Your task to perform on an android device: Turn on the flashlight Image 0: 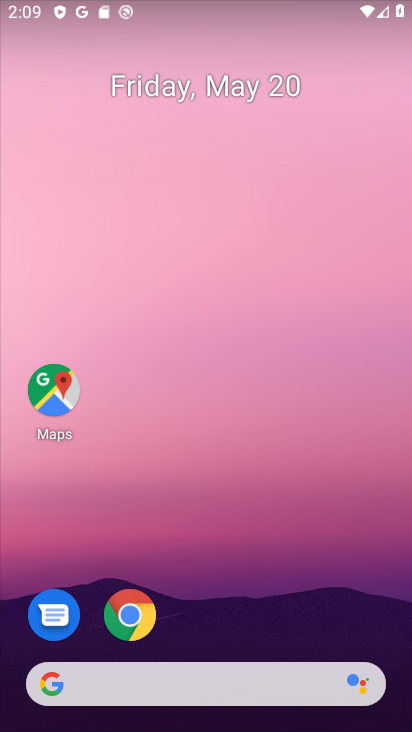
Step 0: drag from (263, 632) to (250, 64)
Your task to perform on an android device: Turn on the flashlight Image 1: 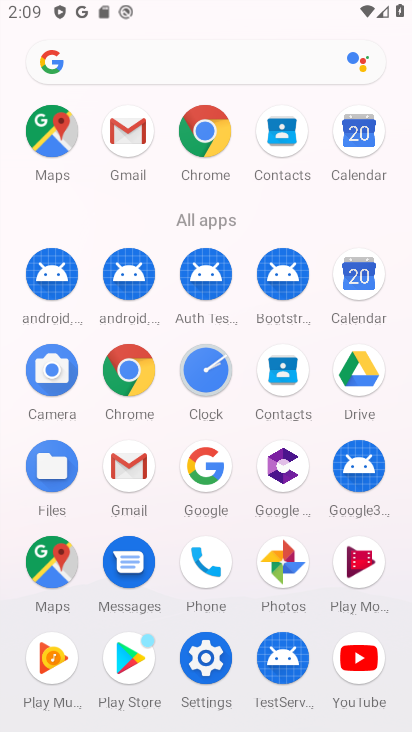
Step 1: drag from (243, 6) to (272, 574)
Your task to perform on an android device: Turn on the flashlight Image 2: 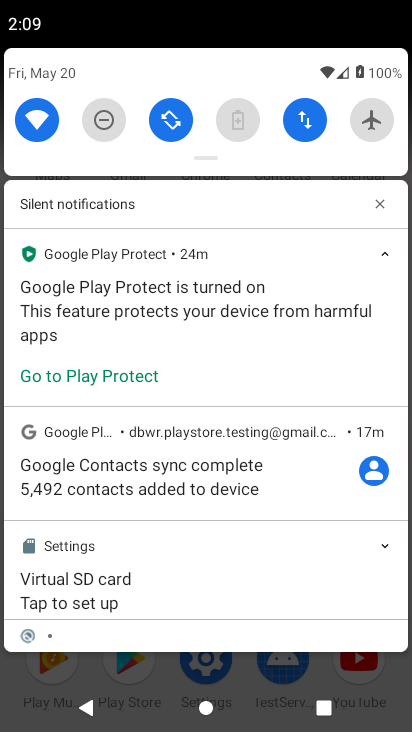
Step 2: drag from (209, 136) to (297, 638)
Your task to perform on an android device: Turn on the flashlight Image 3: 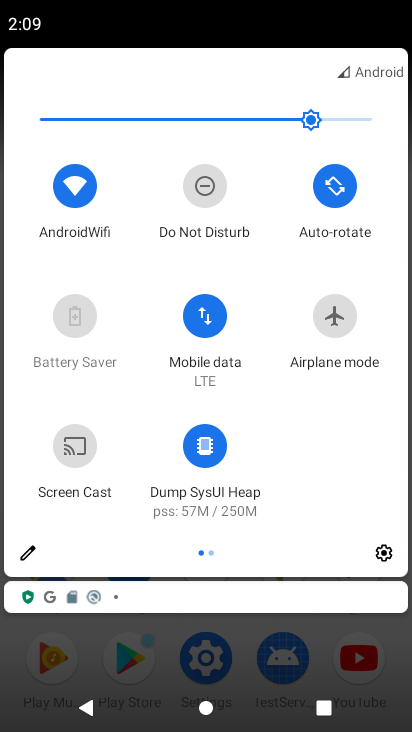
Step 3: click (30, 549)
Your task to perform on an android device: Turn on the flashlight Image 4: 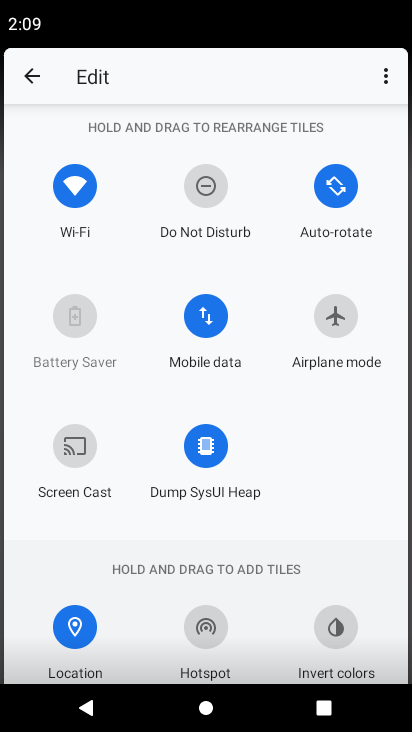
Step 4: task complete